Your task to perform on an android device: change the clock display to analog Image 0: 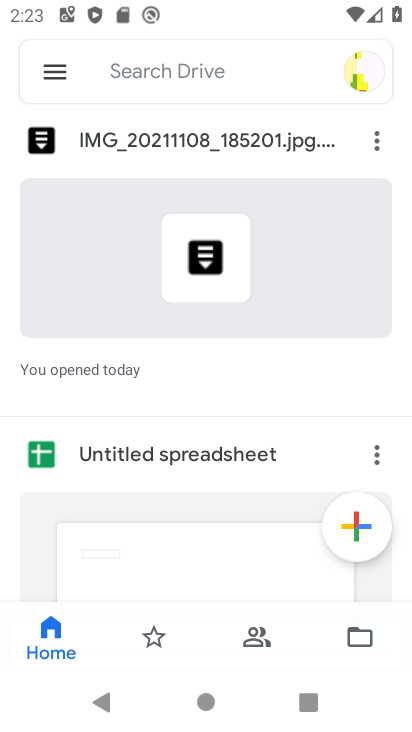
Step 0: press home button
Your task to perform on an android device: change the clock display to analog Image 1: 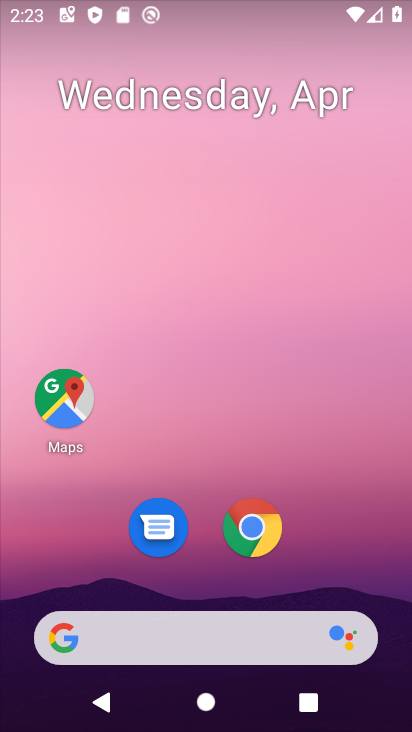
Step 1: drag from (348, 543) to (390, 123)
Your task to perform on an android device: change the clock display to analog Image 2: 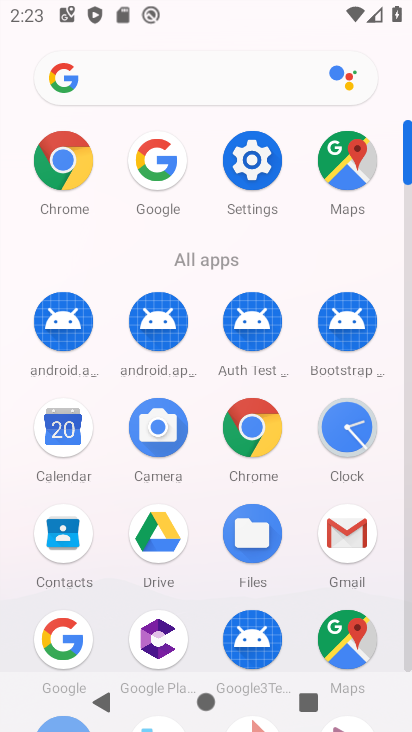
Step 2: click (336, 436)
Your task to perform on an android device: change the clock display to analog Image 3: 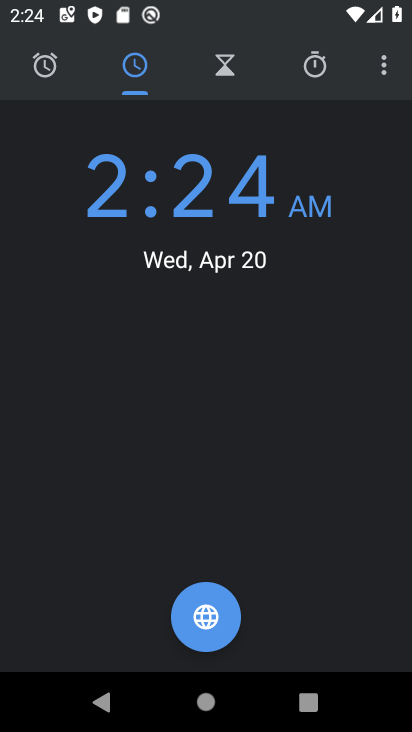
Step 3: click (380, 65)
Your task to perform on an android device: change the clock display to analog Image 4: 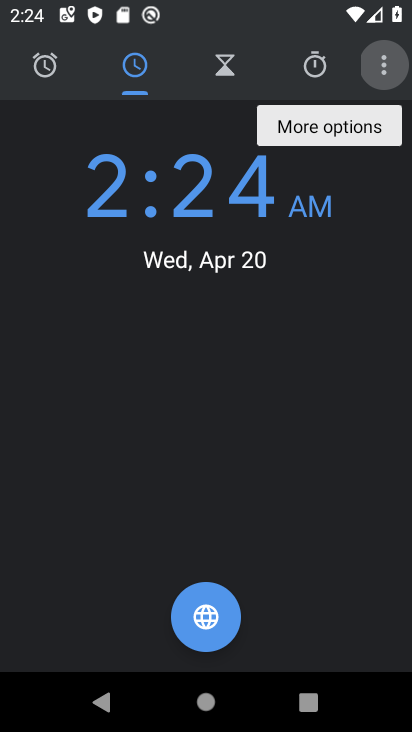
Step 4: click (378, 65)
Your task to perform on an android device: change the clock display to analog Image 5: 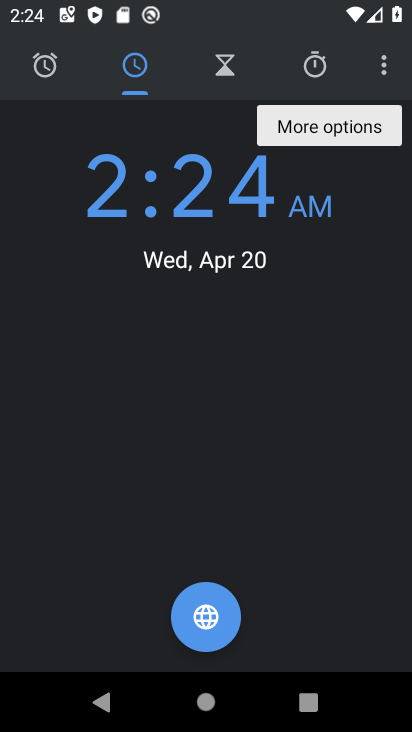
Step 5: click (378, 65)
Your task to perform on an android device: change the clock display to analog Image 6: 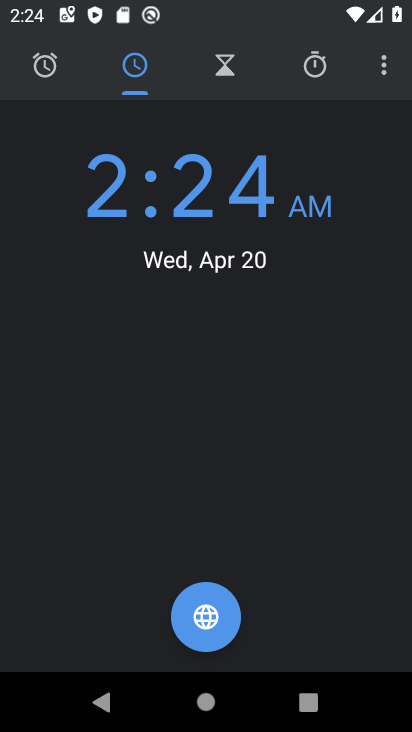
Step 6: click (378, 65)
Your task to perform on an android device: change the clock display to analog Image 7: 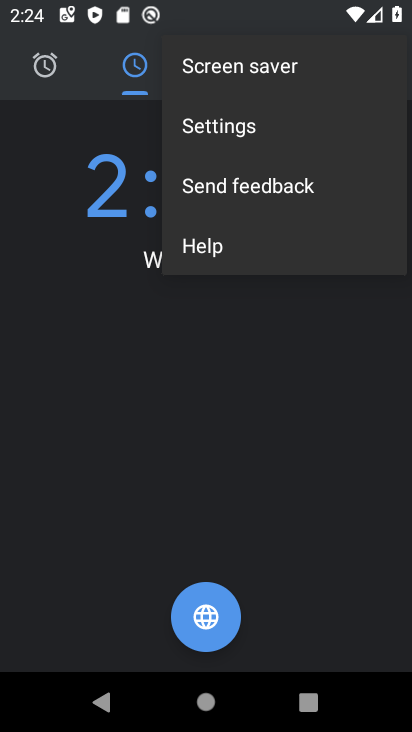
Step 7: click (237, 120)
Your task to perform on an android device: change the clock display to analog Image 8: 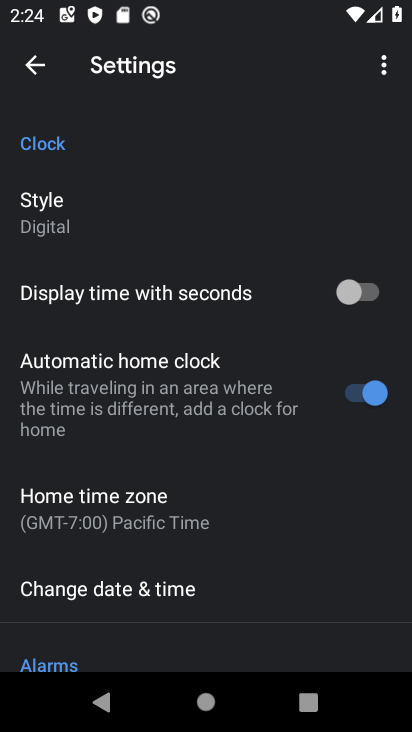
Step 8: click (36, 217)
Your task to perform on an android device: change the clock display to analog Image 9: 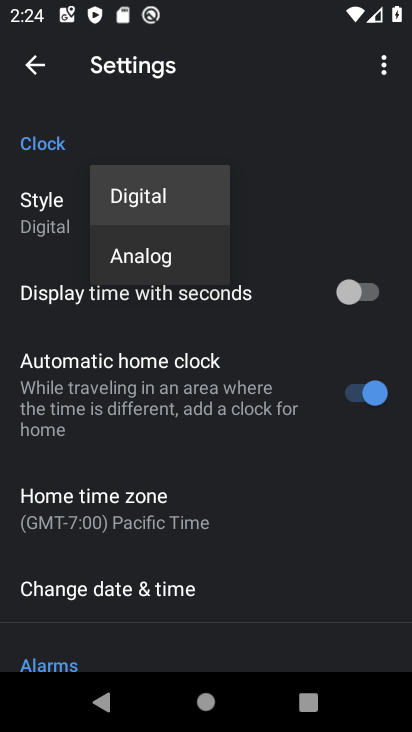
Step 9: click (126, 270)
Your task to perform on an android device: change the clock display to analog Image 10: 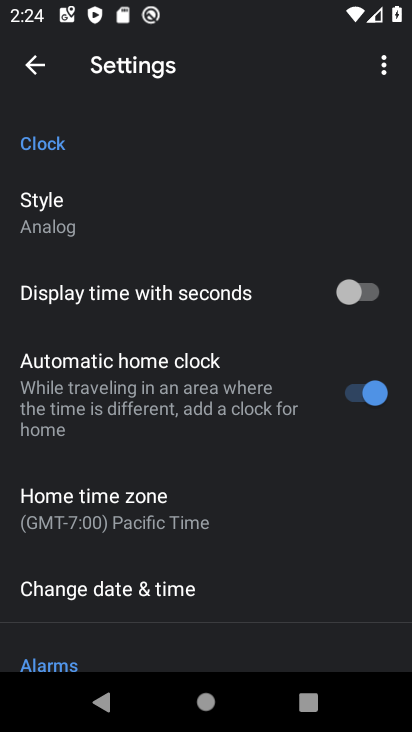
Step 10: task complete